Your task to perform on an android device: check data usage Image 0: 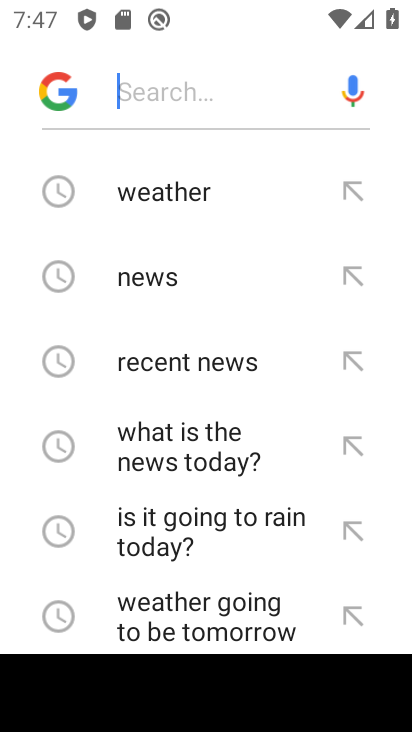
Step 0: press back button
Your task to perform on an android device: check data usage Image 1: 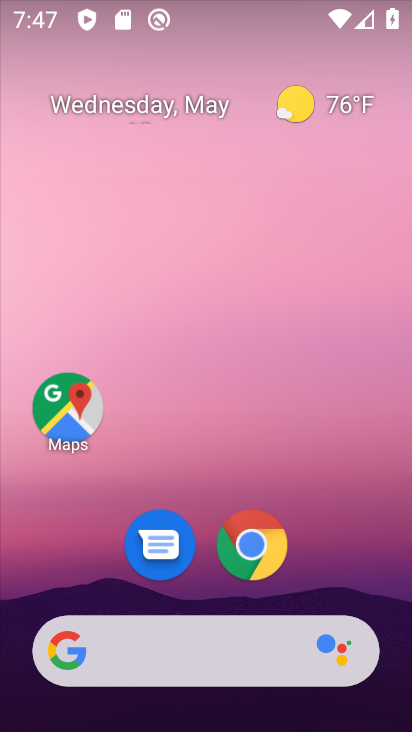
Step 1: drag from (234, 666) to (96, 137)
Your task to perform on an android device: check data usage Image 2: 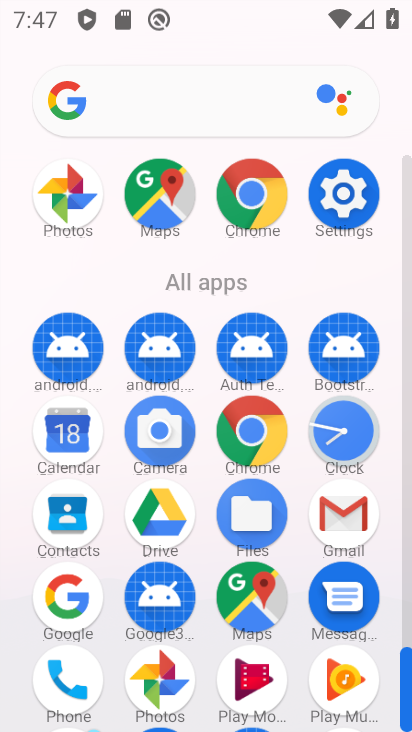
Step 2: click (340, 207)
Your task to perform on an android device: check data usage Image 3: 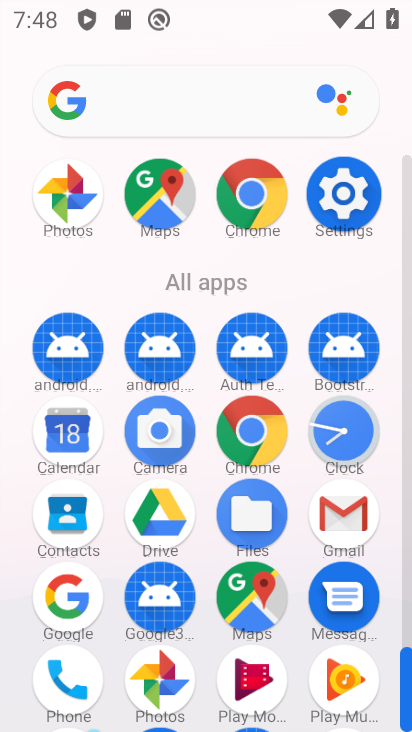
Step 3: click (340, 207)
Your task to perform on an android device: check data usage Image 4: 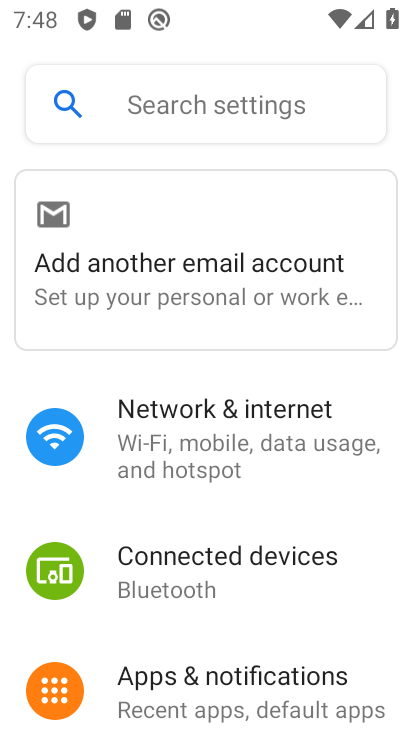
Step 4: click (169, 436)
Your task to perform on an android device: check data usage Image 5: 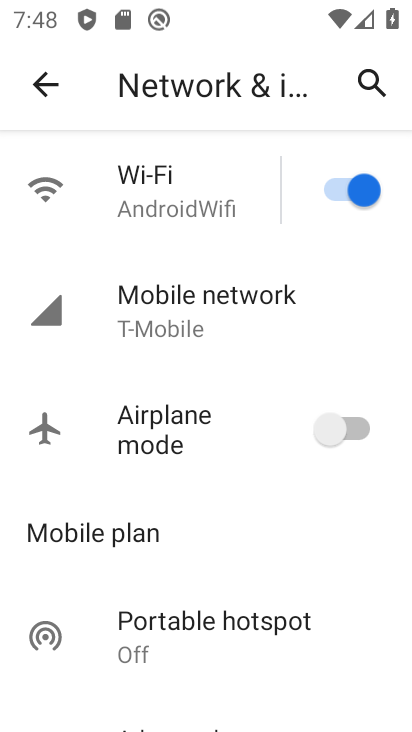
Step 5: click (168, 322)
Your task to perform on an android device: check data usage Image 6: 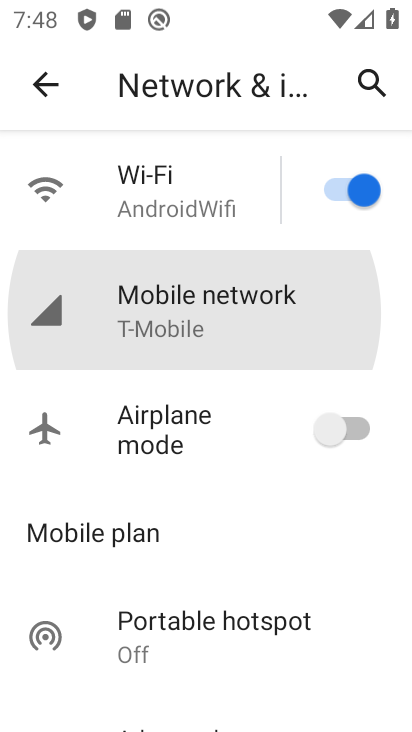
Step 6: click (168, 322)
Your task to perform on an android device: check data usage Image 7: 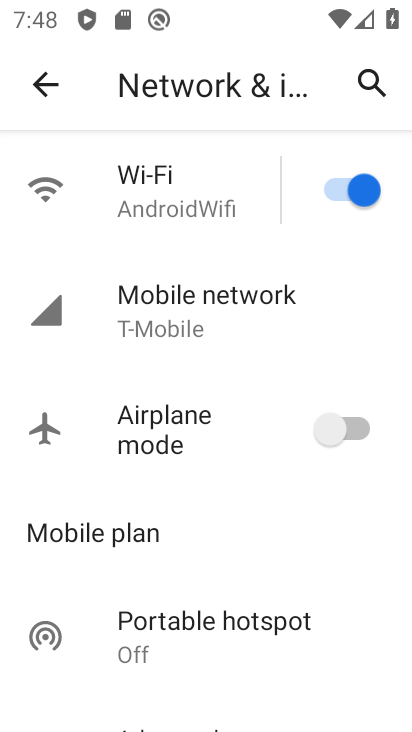
Step 7: click (169, 321)
Your task to perform on an android device: check data usage Image 8: 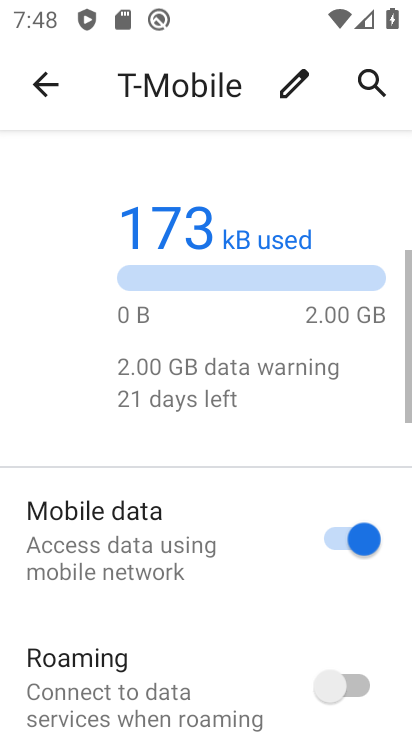
Step 8: click (33, 67)
Your task to perform on an android device: check data usage Image 9: 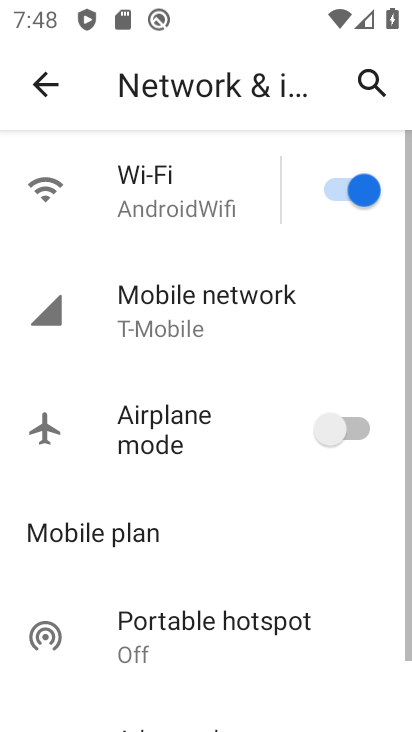
Step 9: task complete